Your task to perform on an android device: open app "Venmo" (install if not already installed) Image 0: 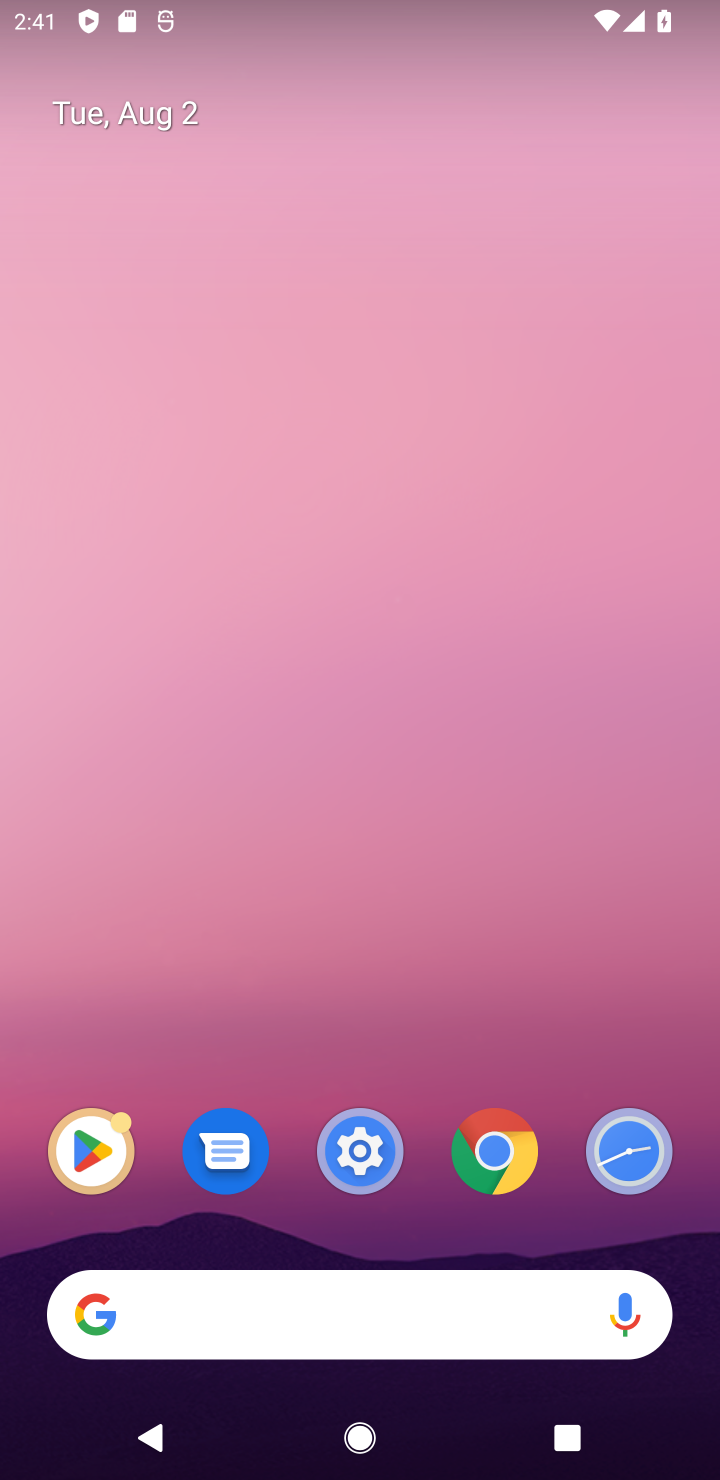
Step 0: drag from (379, 1068) to (621, 147)
Your task to perform on an android device: open app "Venmo" (install if not already installed) Image 1: 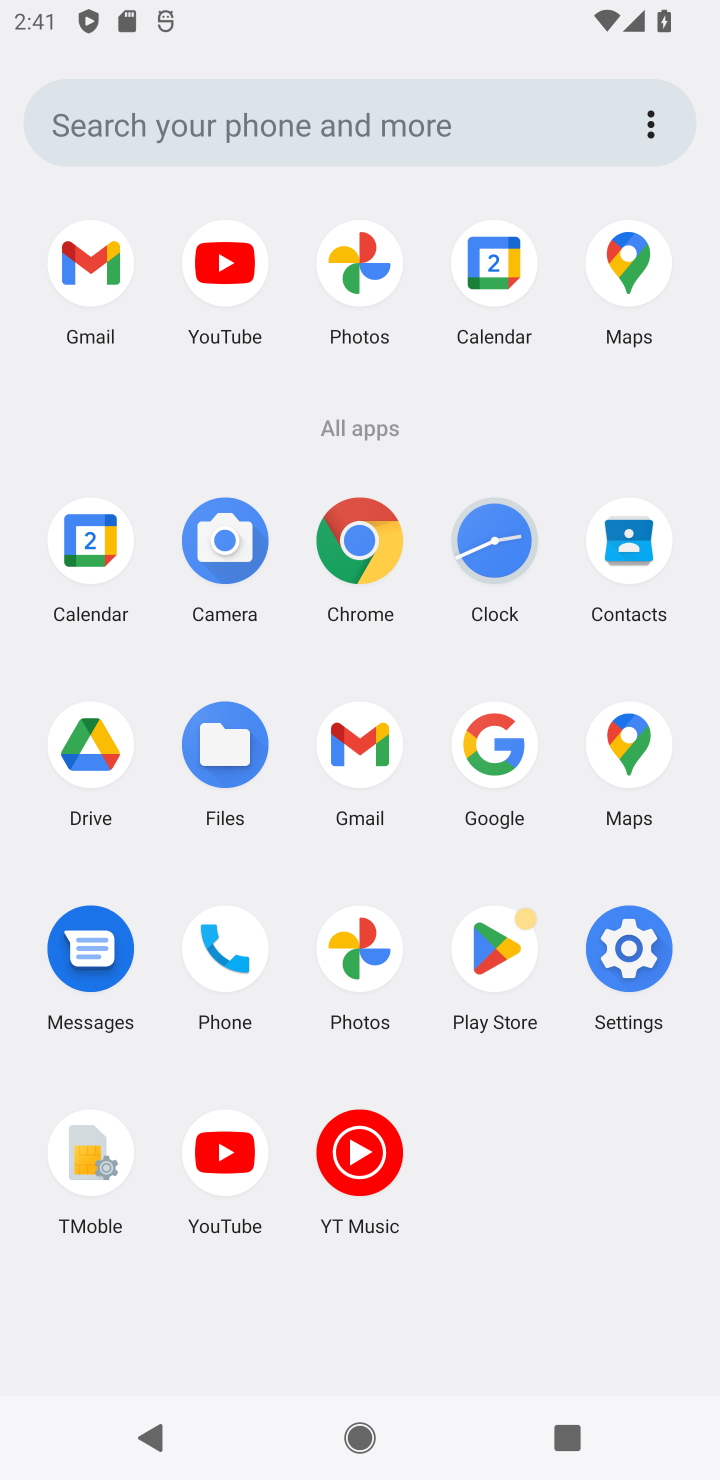
Step 1: click (516, 949)
Your task to perform on an android device: open app "Venmo" (install if not already installed) Image 2: 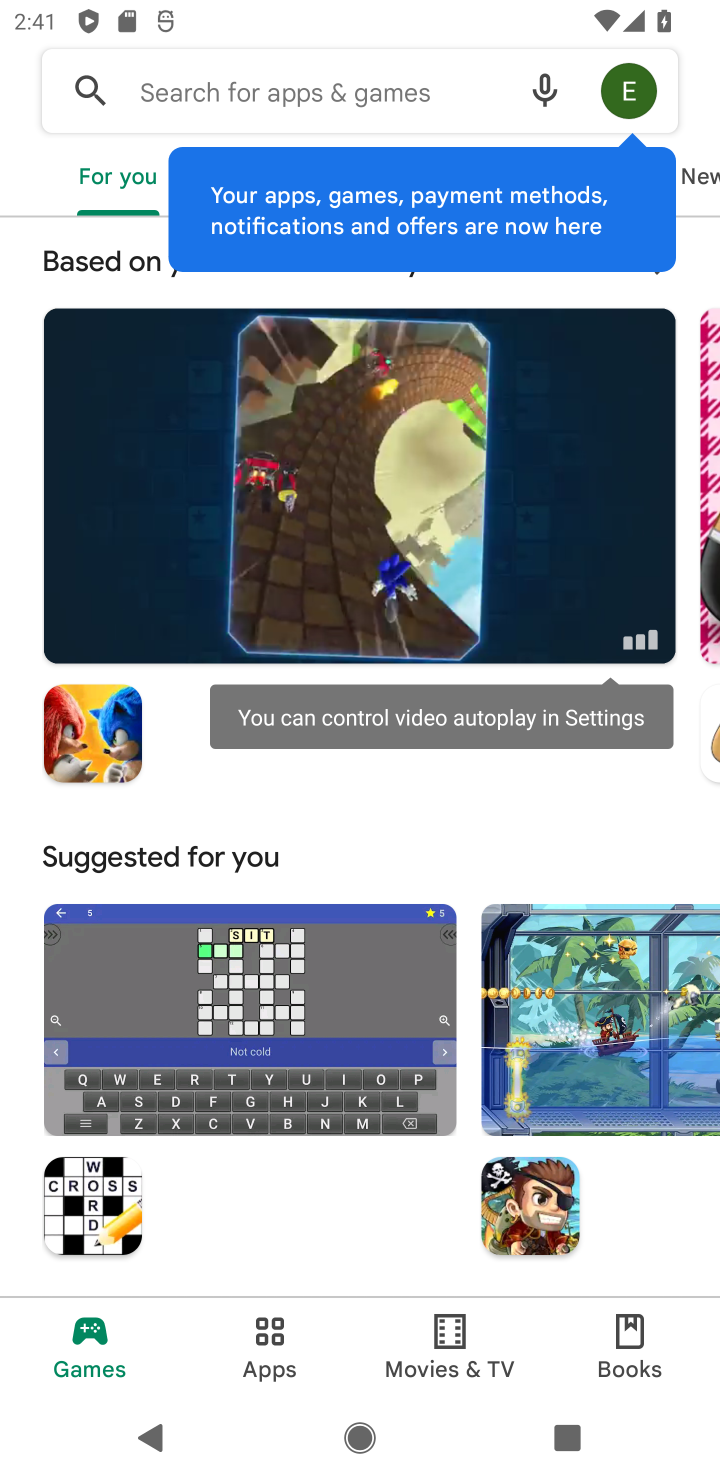
Step 2: click (371, 92)
Your task to perform on an android device: open app "Venmo" (install if not already installed) Image 3: 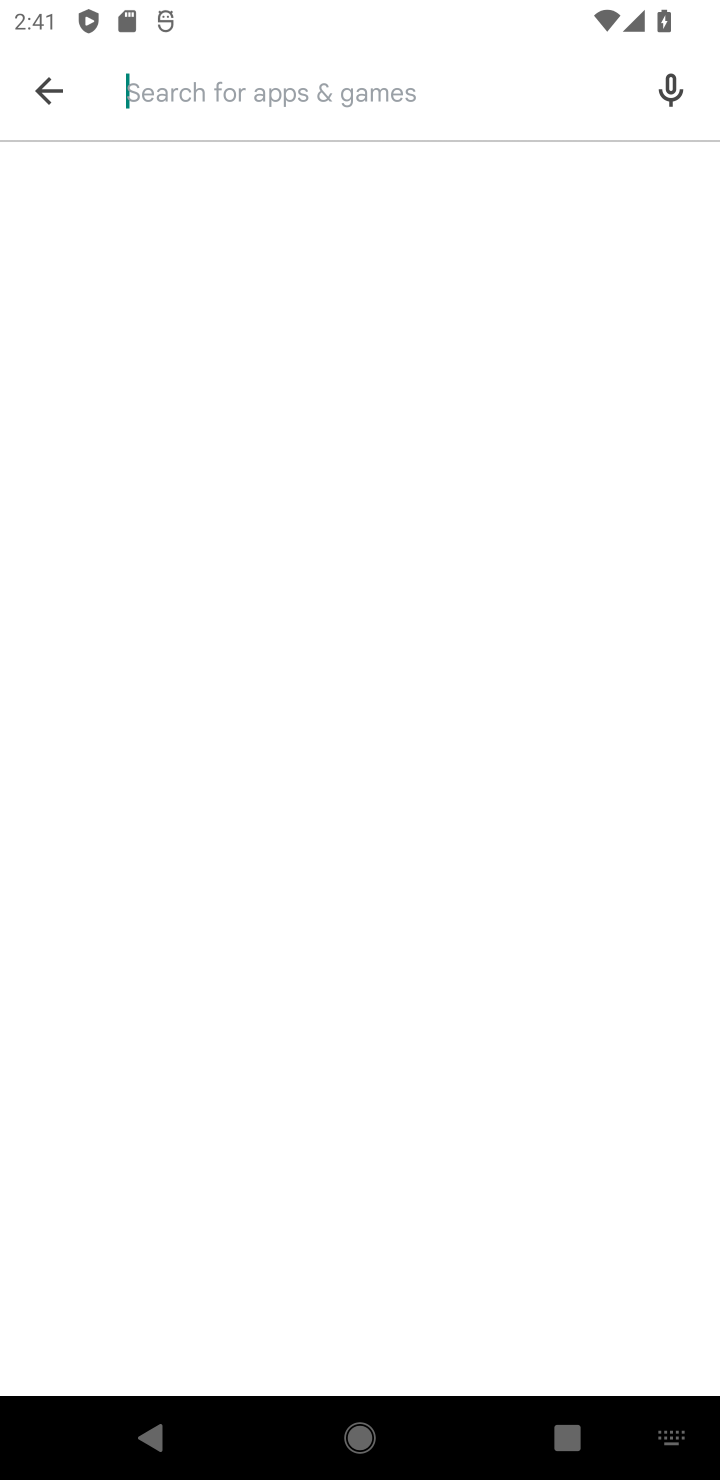
Step 3: type "Venmo"
Your task to perform on an android device: open app "Venmo" (install if not already installed) Image 4: 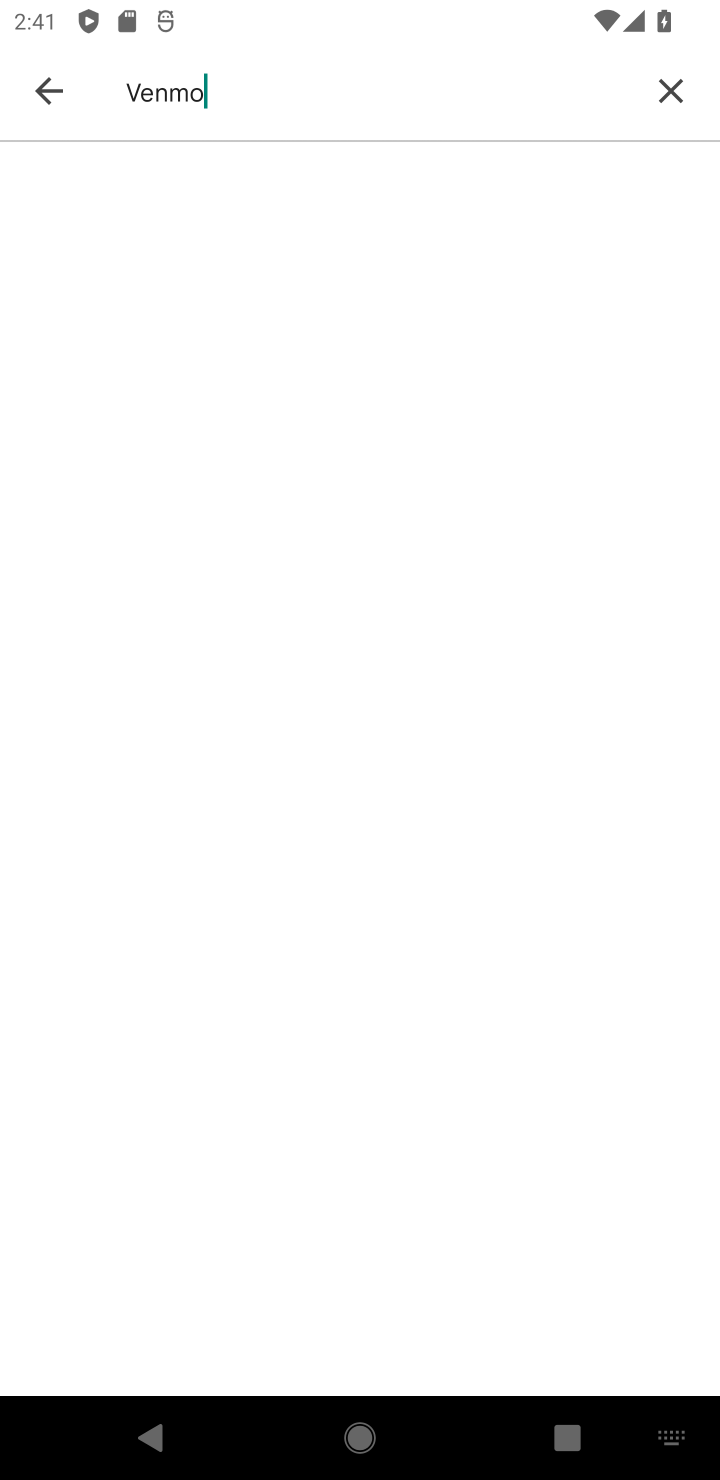
Step 4: type ""
Your task to perform on an android device: open app "Venmo" (install if not already installed) Image 5: 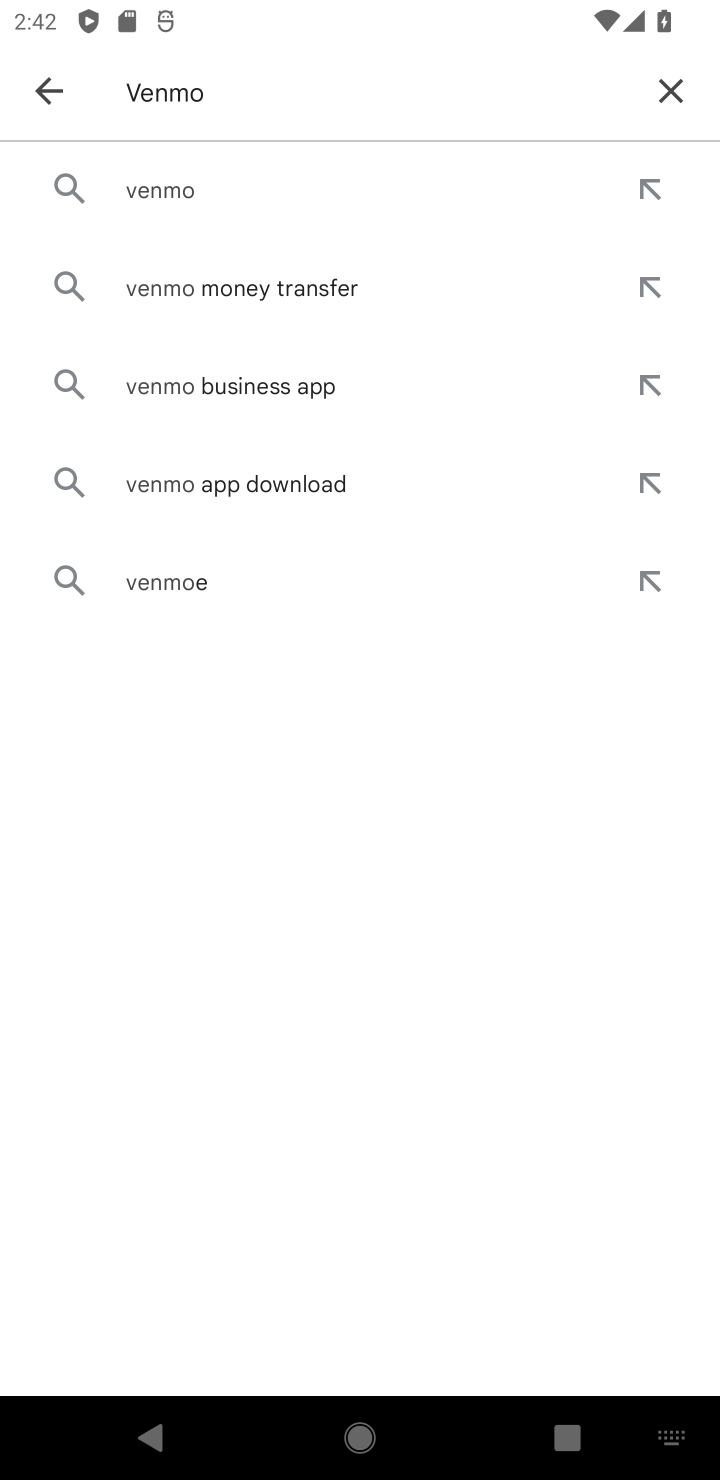
Step 5: click (273, 189)
Your task to perform on an android device: open app "Venmo" (install if not already installed) Image 6: 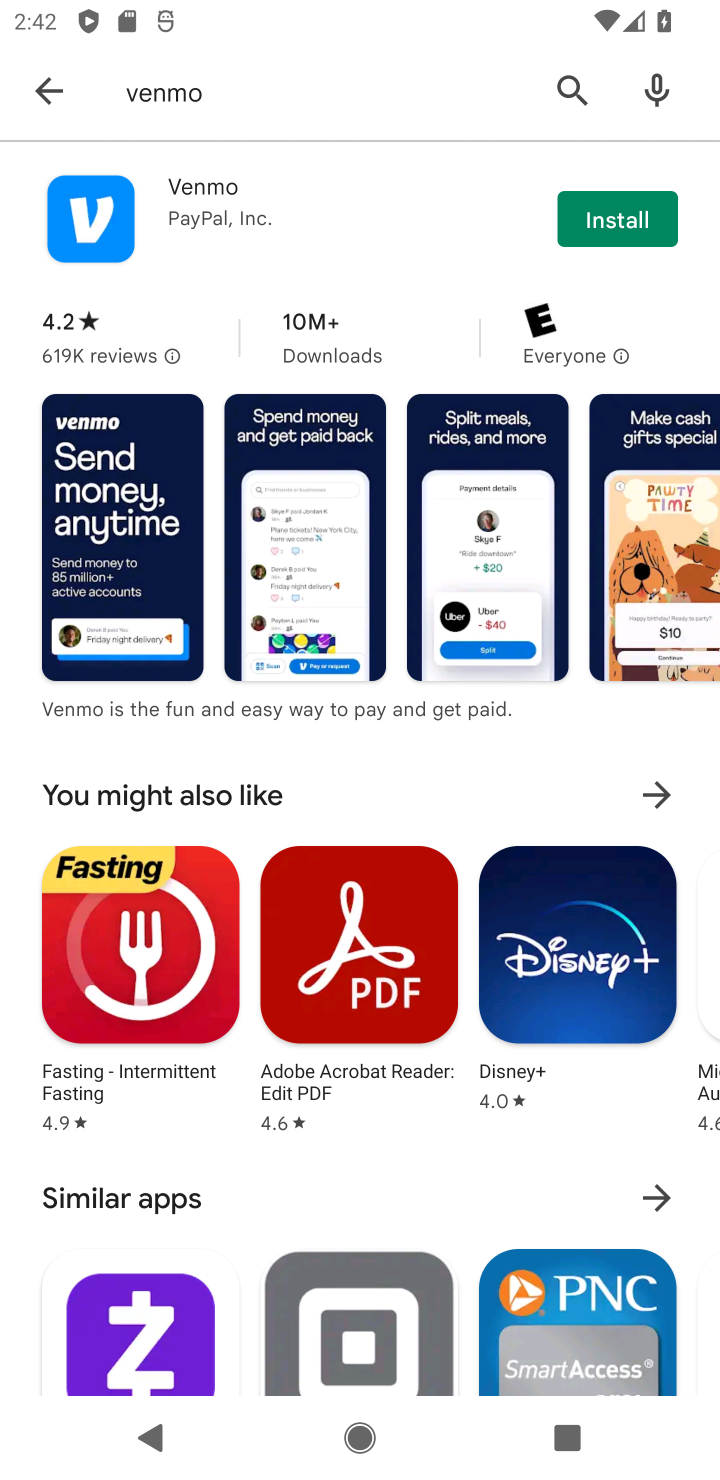
Step 6: click (597, 223)
Your task to perform on an android device: open app "Venmo" (install if not already installed) Image 7: 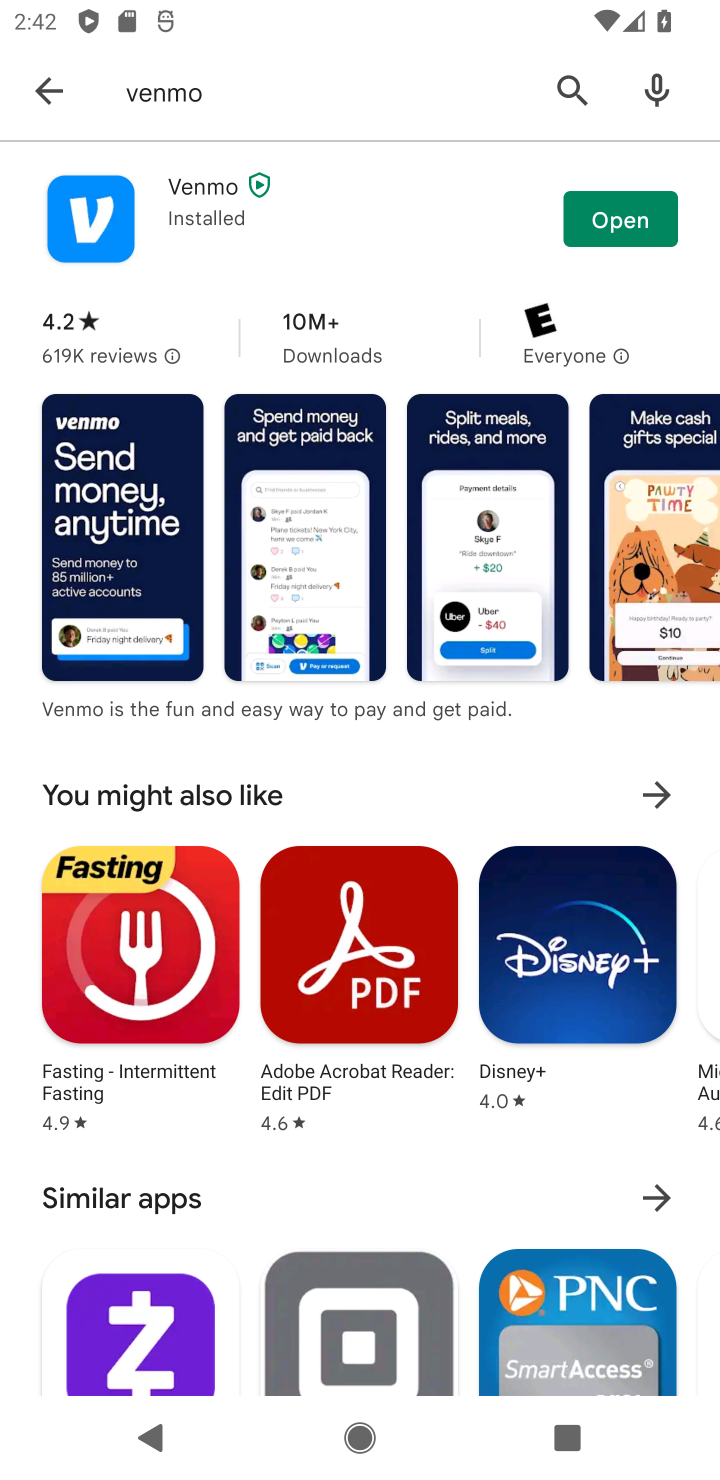
Step 7: click (606, 227)
Your task to perform on an android device: open app "Venmo" (install if not already installed) Image 8: 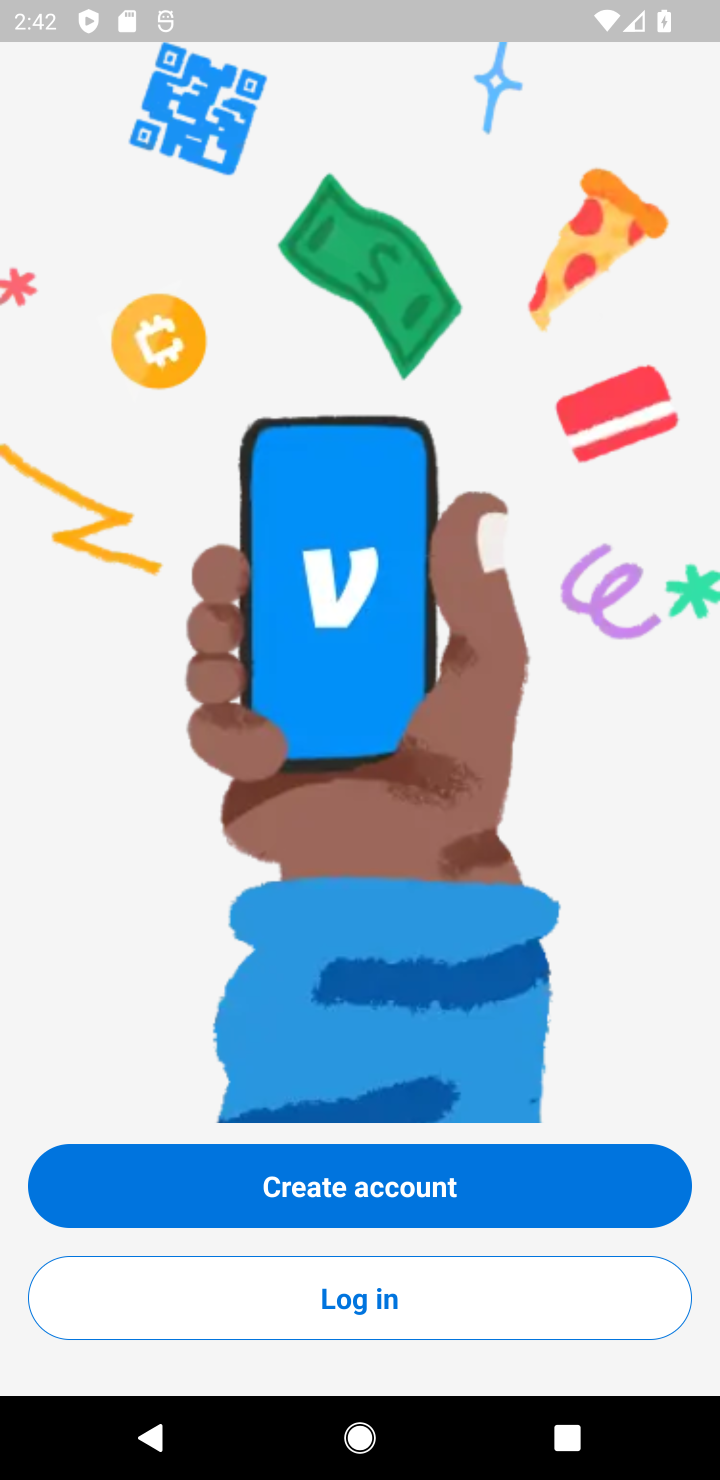
Step 8: task complete